Your task to perform on an android device: Open Google Chrome and click the shortcut for Amazon.com Image 0: 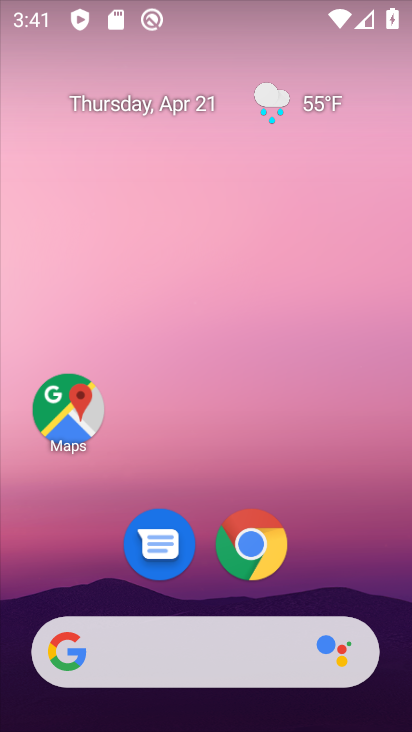
Step 0: drag from (212, 615) to (201, 150)
Your task to perform on an android device: Open Google Chrome and click the shortcut for Amazon.com Image 1: 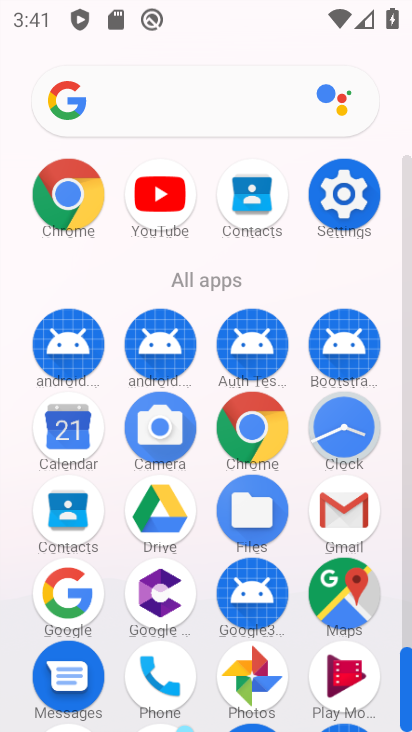
Step 1: click (71, 173)
Your task to perform on an android device: Open Google Chrome and click the shortcut for Amazon.com Image 2: 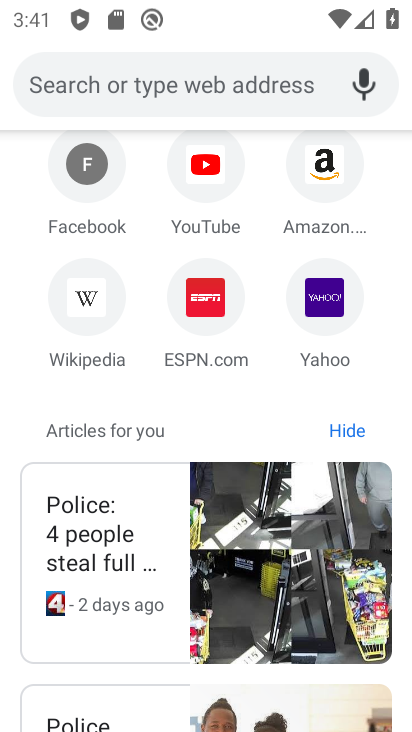
Step 2: click (324, 180)
Your task to perform on an android device: Open Google Chrome and click the shortcut for Amazon.com Image 3: 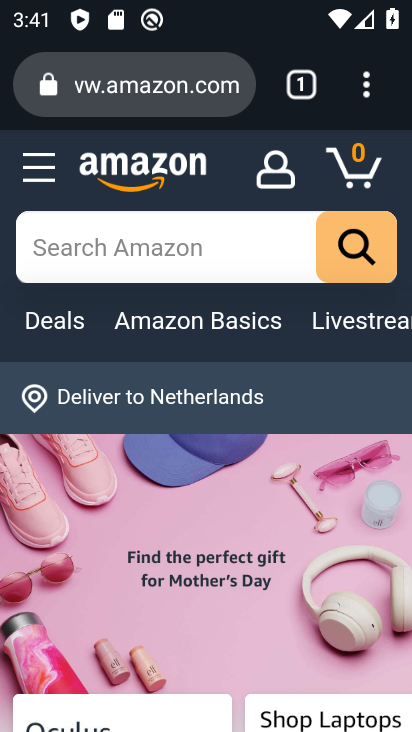
Step 3: task complete